Your task to perform on an android device: Open accessibility settings Image 0: 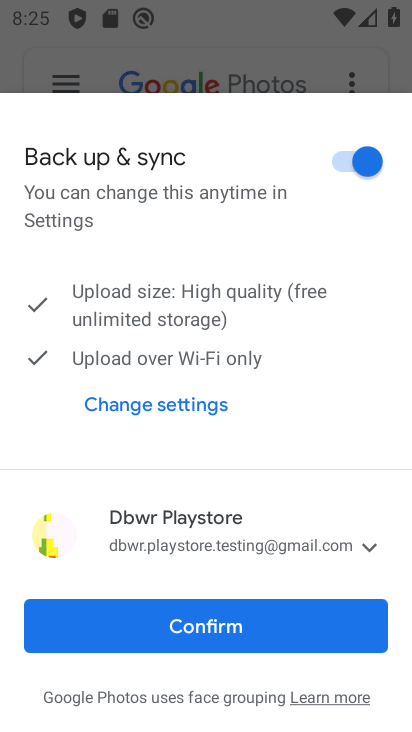
Step 0: press home button
Your task to perform on an android device: Open accessibility settings Image 1: 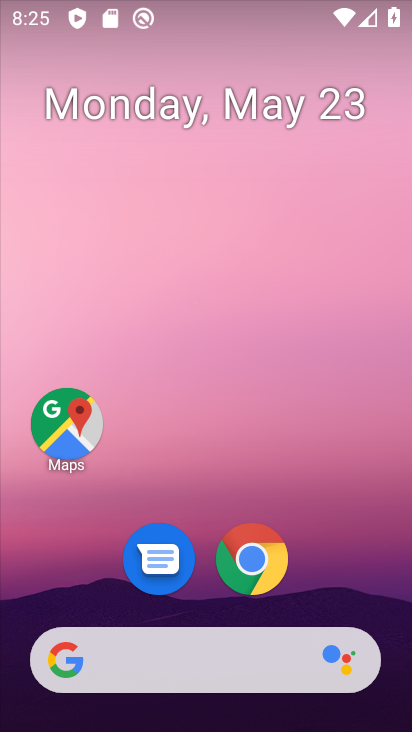
Step 1: drag from (212, 596) to (229, 76)
Your task to perform on an android device: Open accessibility settings Image 2: 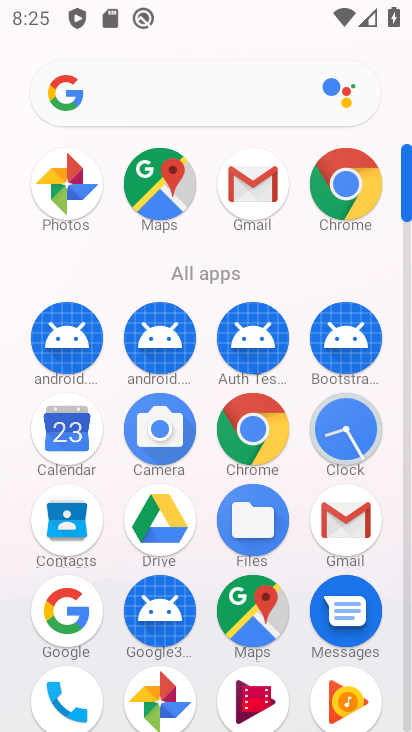
Step 2: drag from (306, 644) to (336, 210)
Your task to perform on an android device: Open accessibility settings Image 3: 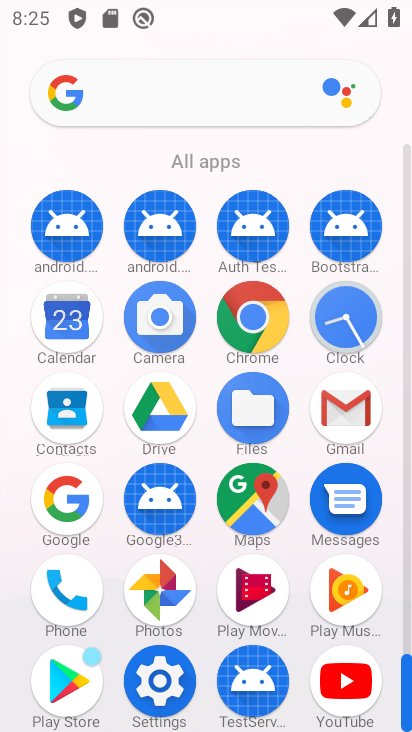
Step 3: click (150, 684)
Your task to perform on an android device: Open accessibility settings Image 4: 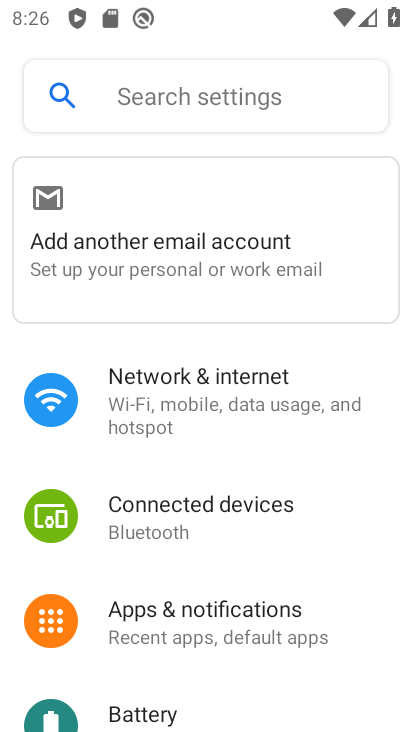
Step 4: drag from (243, 657) to (241, 204)
Your task to perform on an android device: Open accessibility settings Image 5: 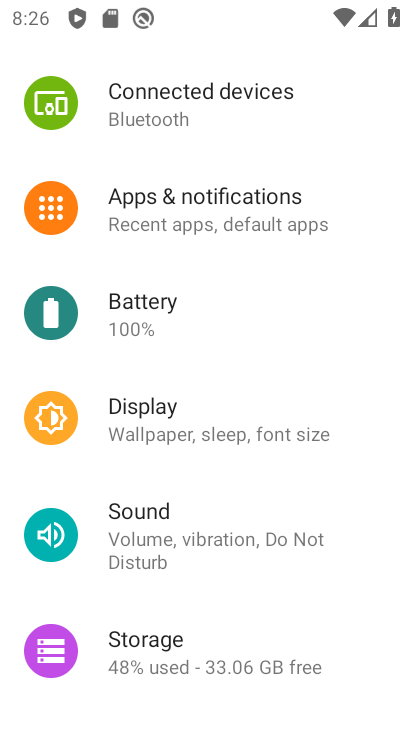
Step 5: drag from (251, 637) to (274, 184)
Your task to perform on an android device: Open accessibility settings Image 6: 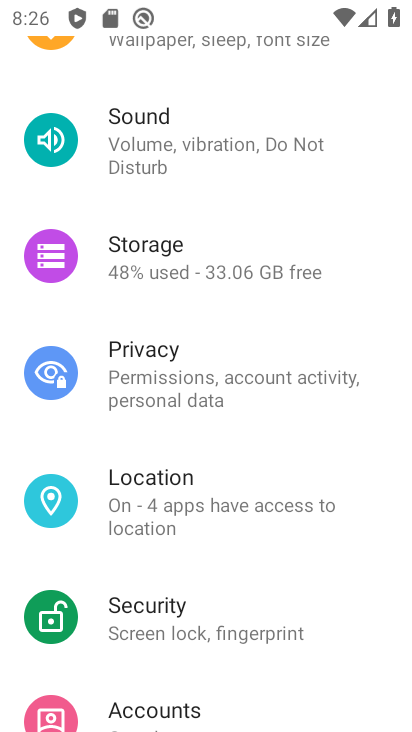
Step 6: drag from (262, 635) to (266, 314)
Your task to perform on an android device: Open accessibility settings Image 7: 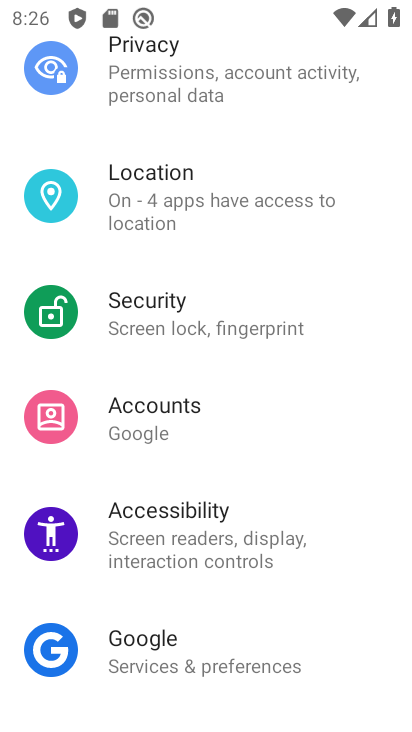
Step 7: click (210, 529)
Your task to perform on an android device: Open accessibility settings Image 8: 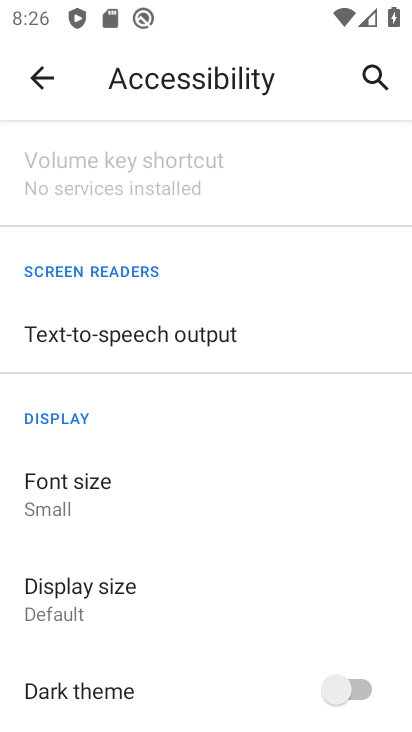
Step 8: task complete